Your task to perform on an android device: see creations saved in the google photos Image 0: 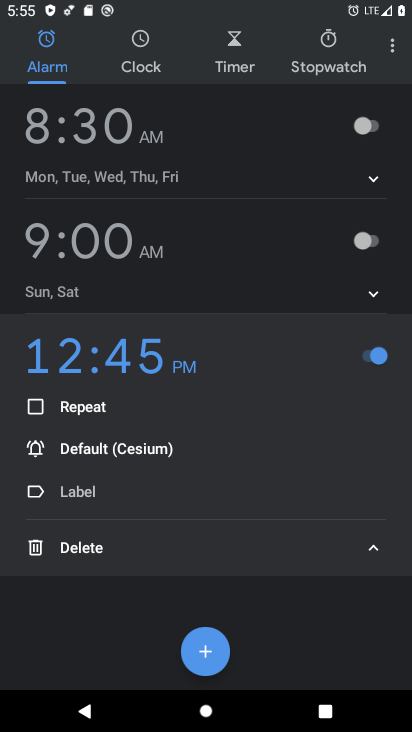
Step 0: press home button
Your task to perform on an android device: see creations saved in the google photos Image 1: 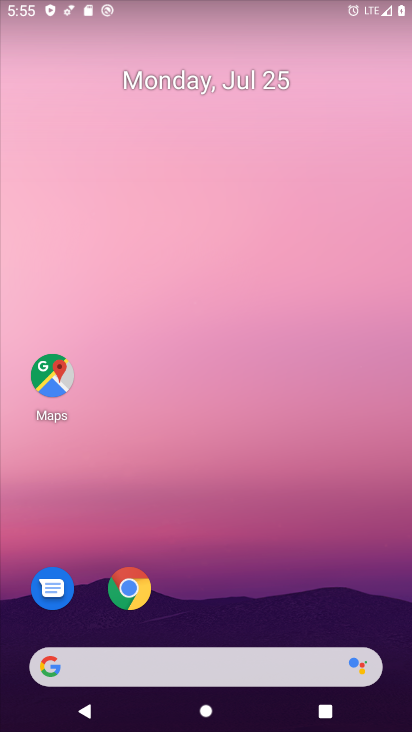
Step 1: drag from (175, 666) to (252, 216)
Your task to perform on an android device: see creations saved in the google photos Image 2: 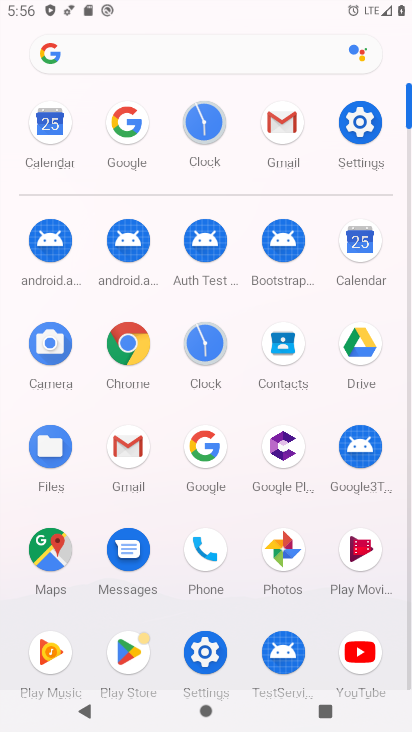
Step 2: click (282, 550)
Your task to perform on an android device: see creations saved in the google photos Image 3: 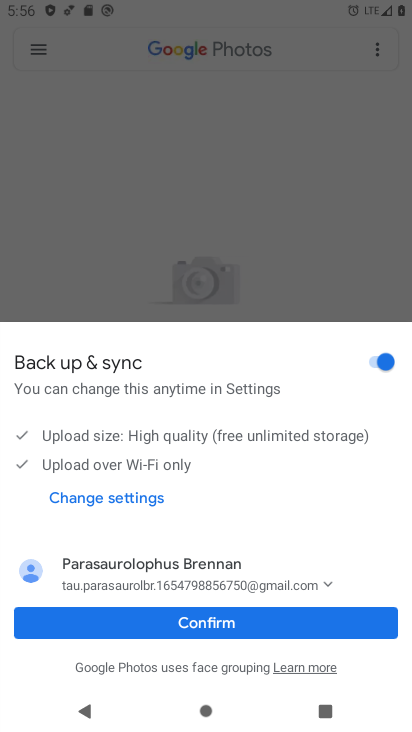
Step 3: click (213, 623)
Your task to perform on an android device: see creations saved in the google photos Image 4: 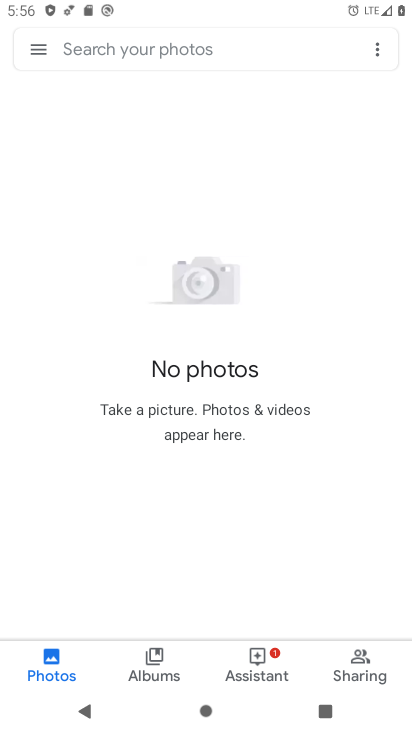
Step 4: click (153, 657)
Your task to perform on an android device: see creations saved in the google photos Image 5: 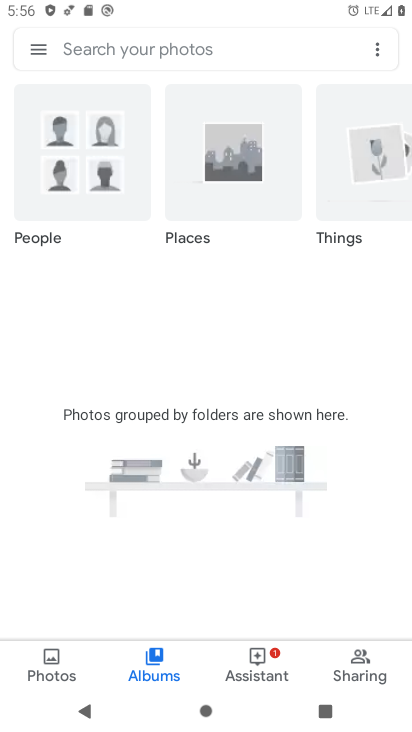
Step 5: click (41, 45)
Your task to perform on an android device: see creations saved in the google photos Image 6: 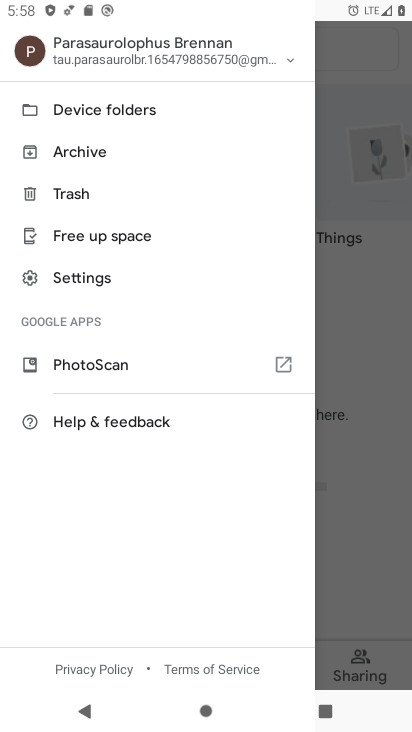
Step 6: click (370, 531)
Your task to perform on an android device: see creations saved in the google photos Image 7: 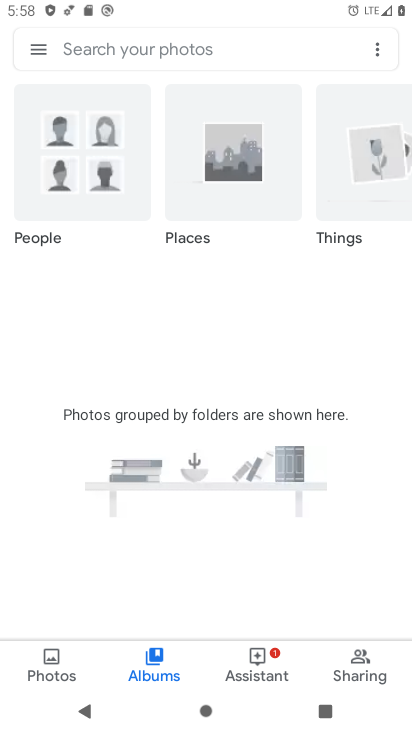
Step 7: click (152, 51)
Your task to perform on an android device: see creations saved in the google photos Image 8: 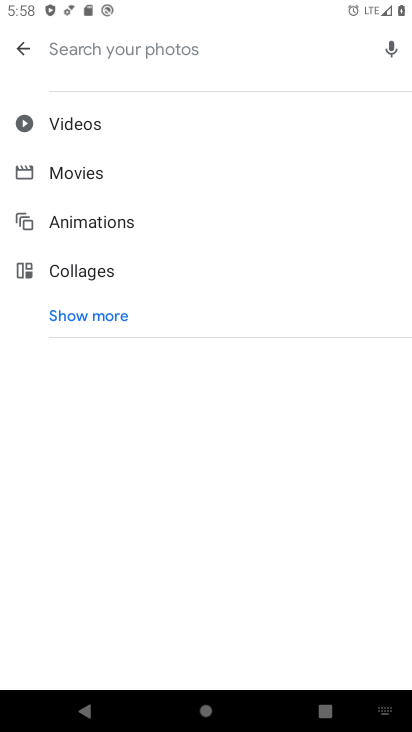
Step 8: click (80, 317)
Your task to perform on an android device: see creations saved in the google photos Image 9: 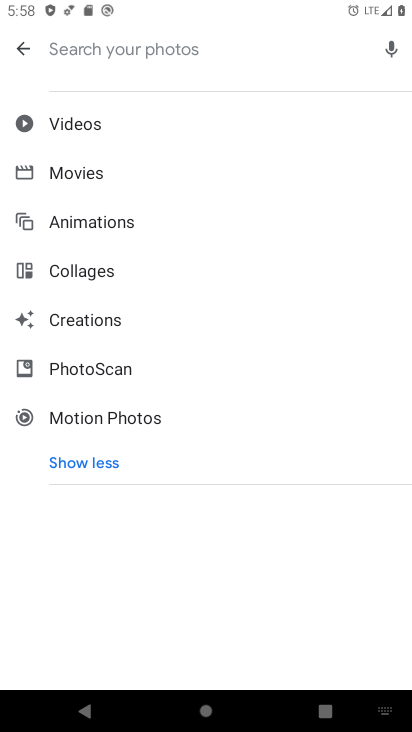
Step 9: click (80, 317)
Your task to perform on an android device: see creations saved in the google photos Image 10: 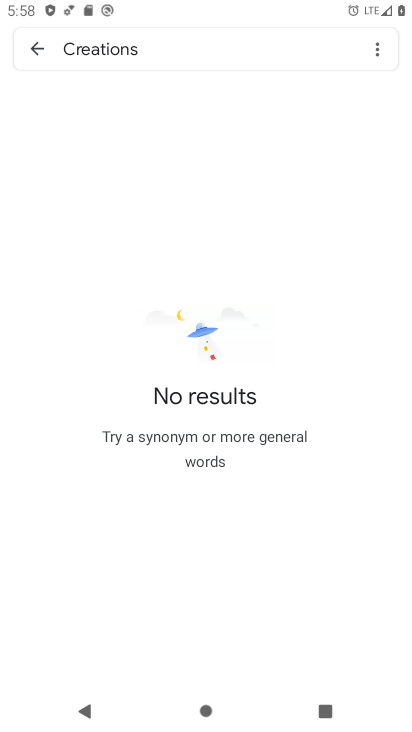
Step 10: task complete